Your task to perform on an android device: toggle improve location accuracy Image 0: 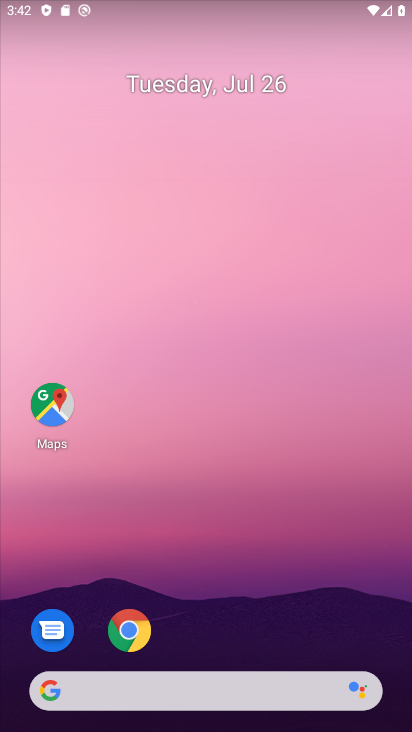
Step 0: drag from (319, 638) to (208, 46)
Your task to perform on an android device: toggle improve location accuracy Image 1: 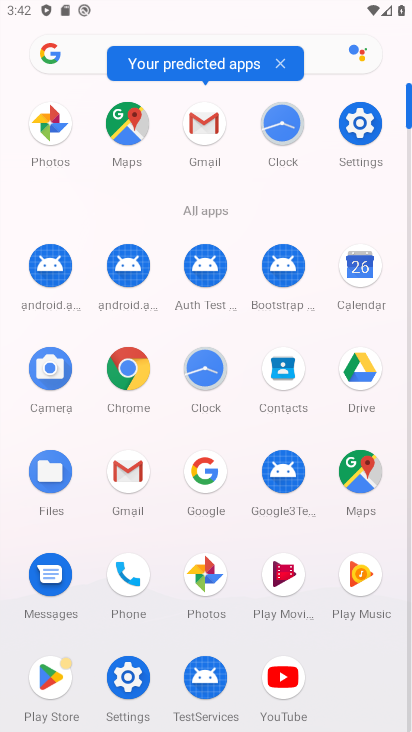
Step 1: click (354, 118)
Your task to perform on an android device: toggle improve location accuracy Image 2: 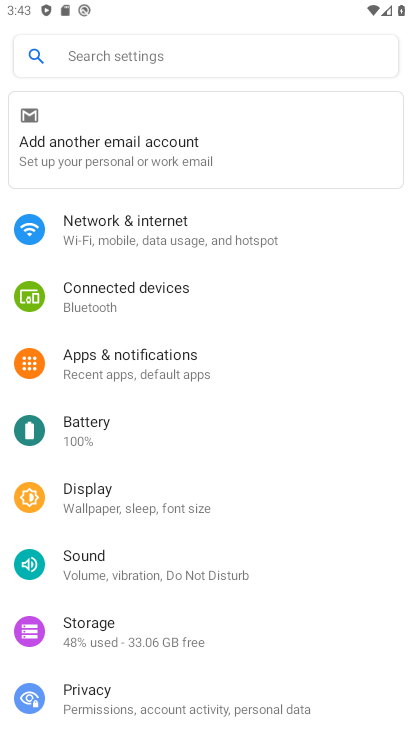
Step 2: drag from (216, 664) to (129, 198)
Your task to perform on an android device: toggle improve location accuracy Image 3: 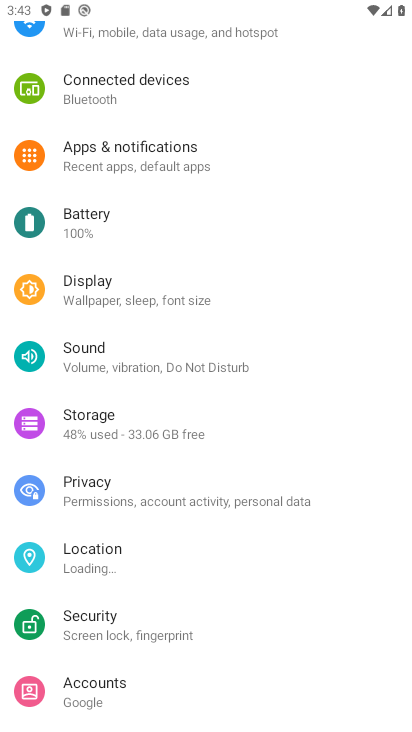
Step 3: click (185, 546)
Your task to perform on an android device: toggle improve location accuracy Image 4: 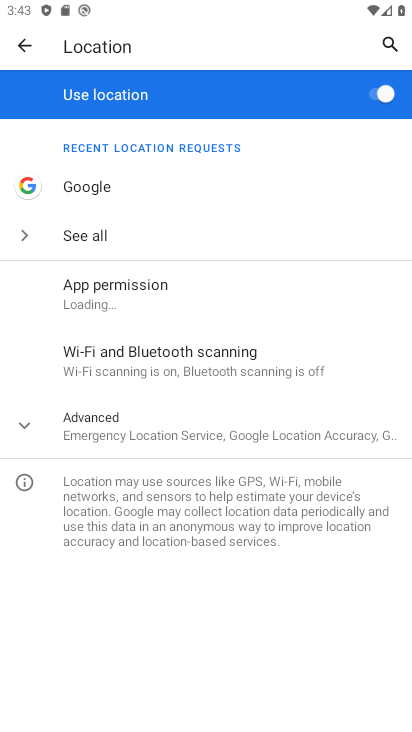
Step 4: click (270, 417)
Your task to perform on an android device: toggle improve location accuracy Image 5: 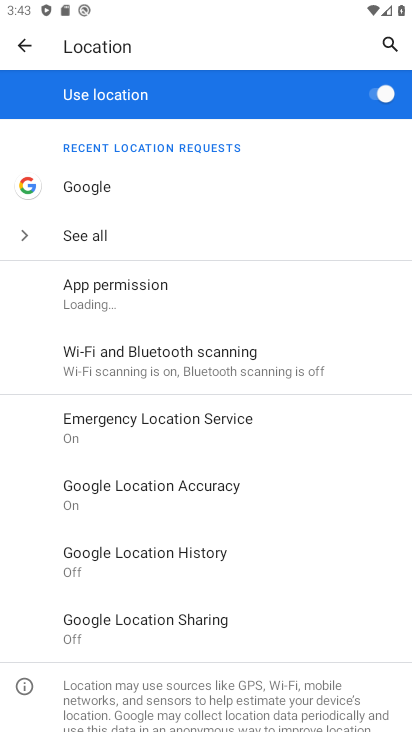
Step 5: click (269, 502)
Your task to perform on an android device: toggle improve location accuracy Image 6: 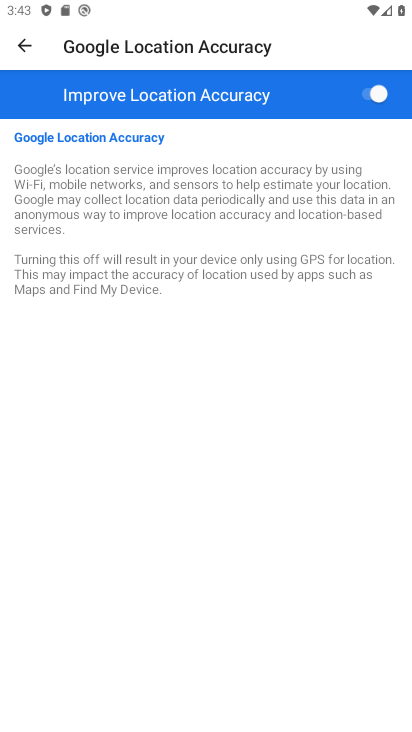
Step 6: click (370, 101)
Your task to perform on an android device: toggle improve location accuracy Image 7: 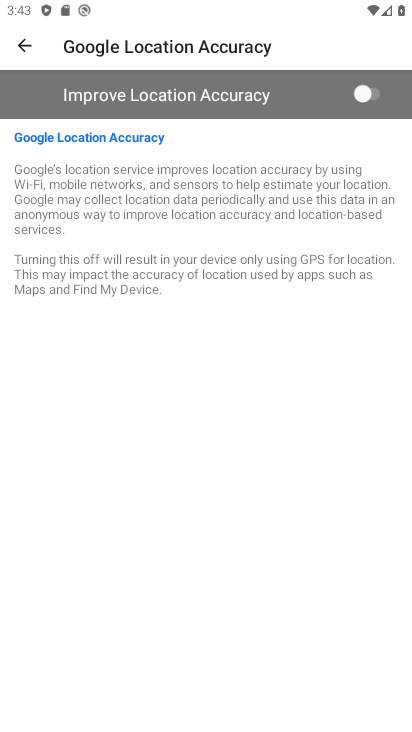
Step 7: task complete